Your task to perform on an android device: create a new album in the google photos Image 0: 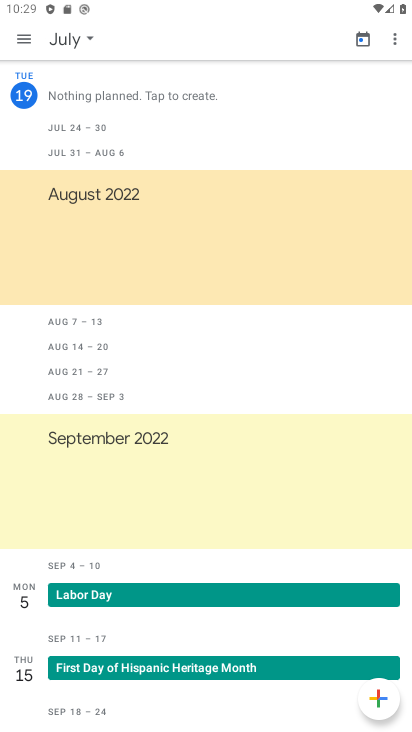
Step 0: press home button
Your task to perform on an android device: create a new album in the google photos Image 1: 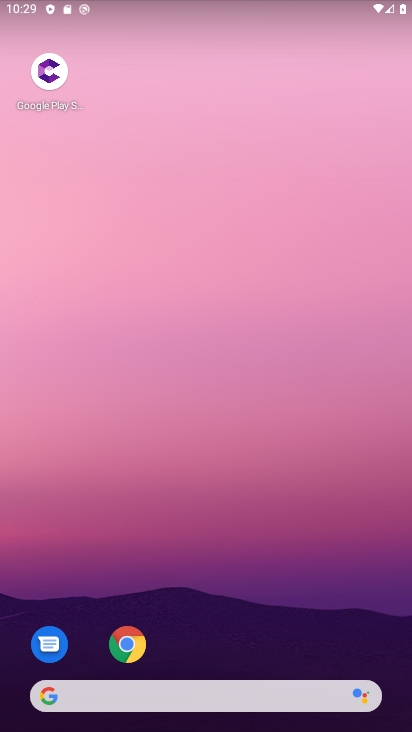
Step 1: drag from (233, 547) to (233, 72)
Your task to perform on an android device: create a new album in the google photos Image 2: 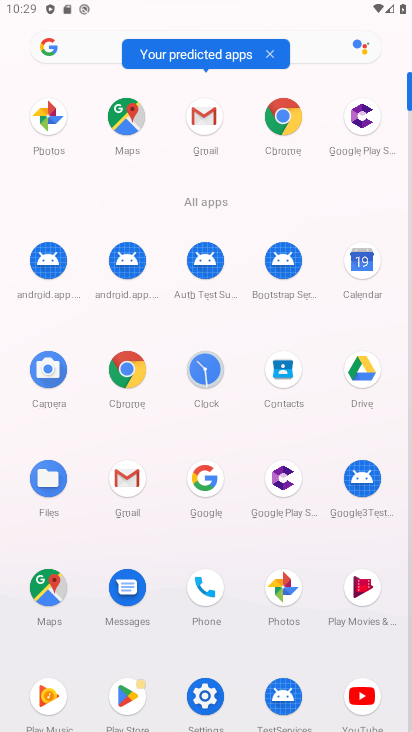
Step 2: click (50, 116)
Your task to perform on an android device: create a new album in the google photos Image 3: 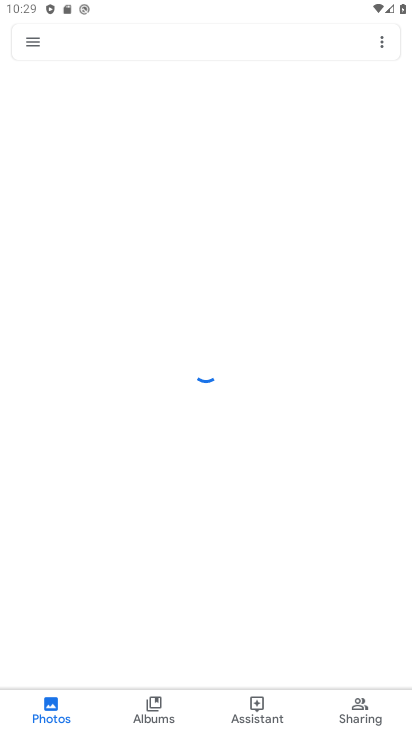
Step 3: click (151, 701)
Your task to perform on an android device: create a new album in the google photos Image 4: 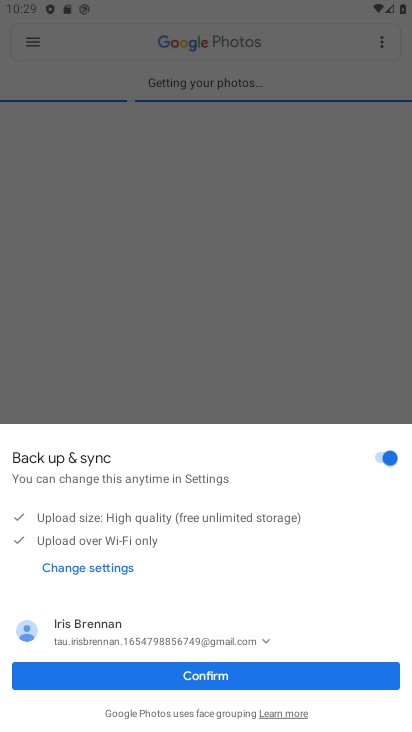
Step 4: click (183, 679)
Your task to perform on an android device: create a new album in the google photos Image 5: 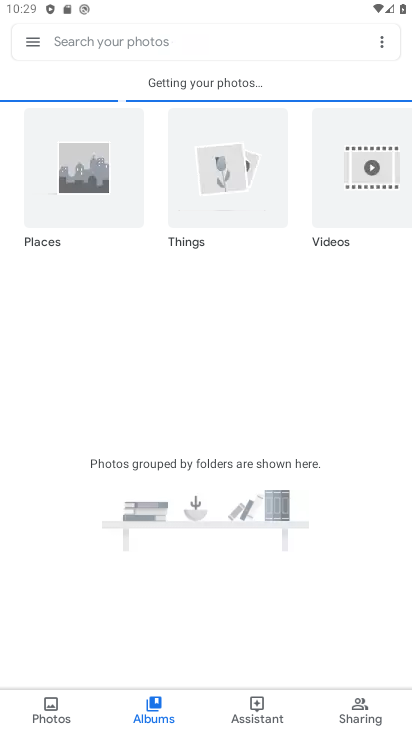
Step 5: click (385, 42)
Your task to perform on an android device: create a new album in the google photos Image 6: 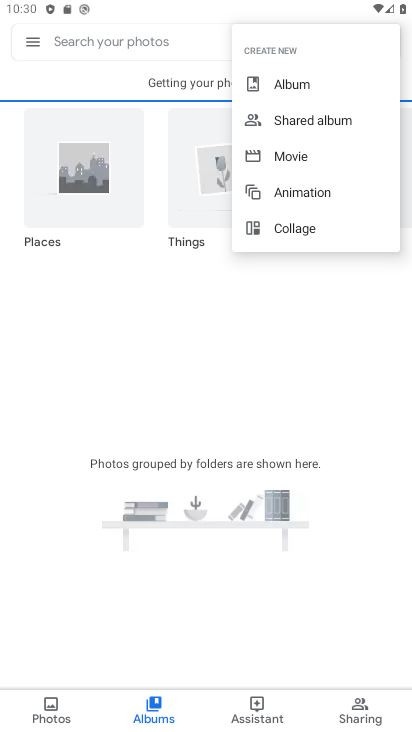
Step 6: click (295, 82)
Your task to perform on an android device: create a new album in the google photos Image 7: 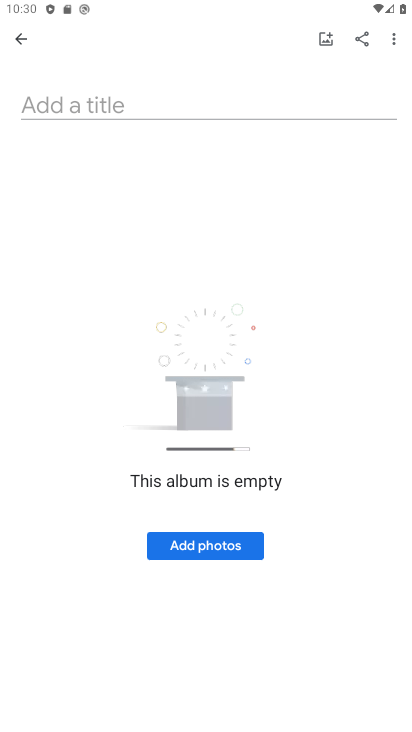
Step 7: click (98, 93)
Your task to perform on an android device: create a new album in the google photos Image 8: 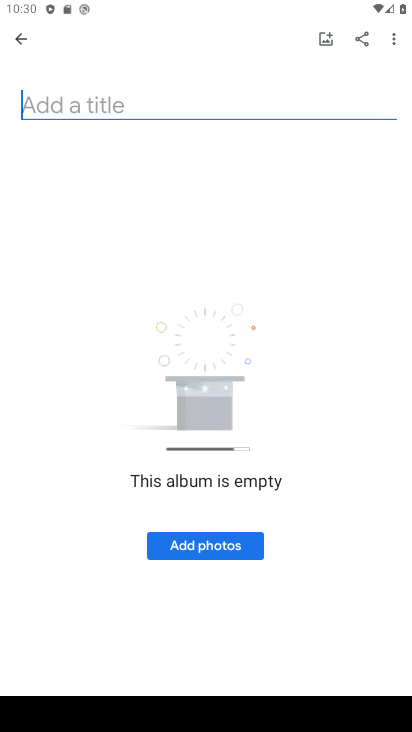
Step 8: type "ytre"
Your task to perform on an android device: create a new album in the google photos Image 9: 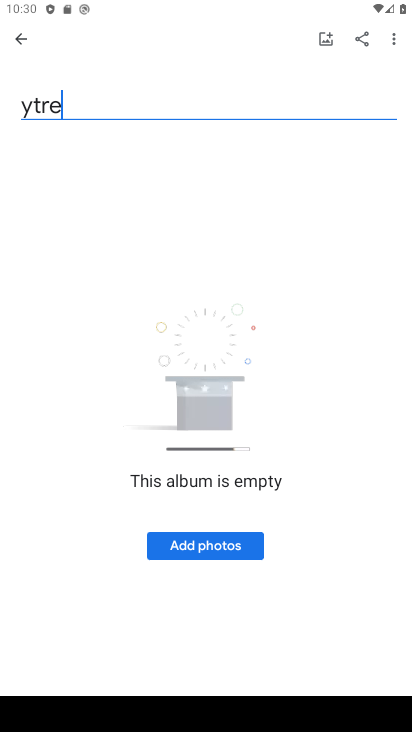
Step 9: click (325, 38)
Your task to perform on an android device: create a new album in the google photos Image 10: 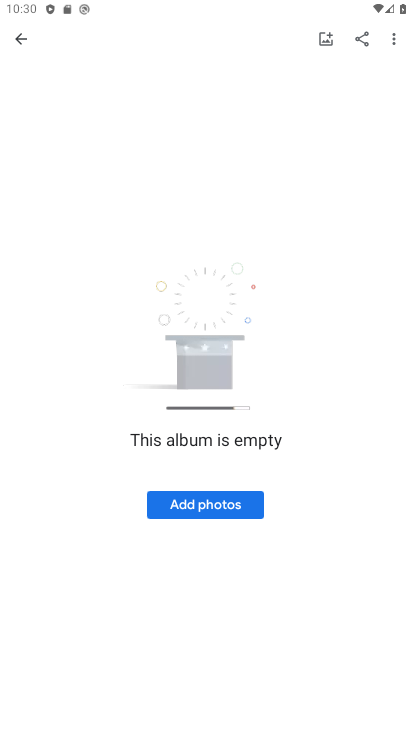
Step 10: task complete